Your task to perform on an android device: Open Chrome and go to the settings page Image 0: 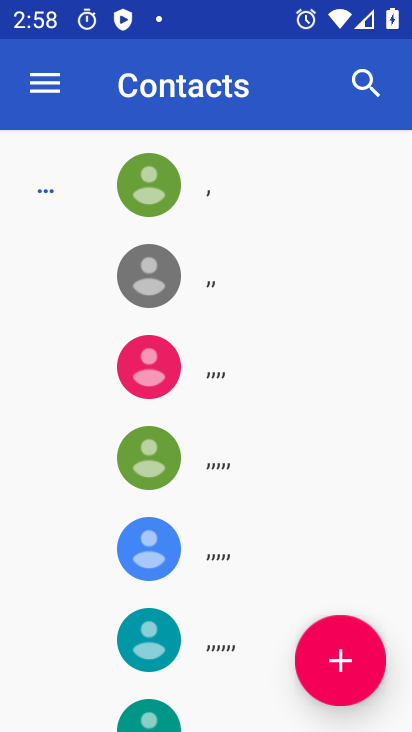
Step 0: press home button
Your task to perform on an android device: Open Chrome and go to the settings page Image 1: 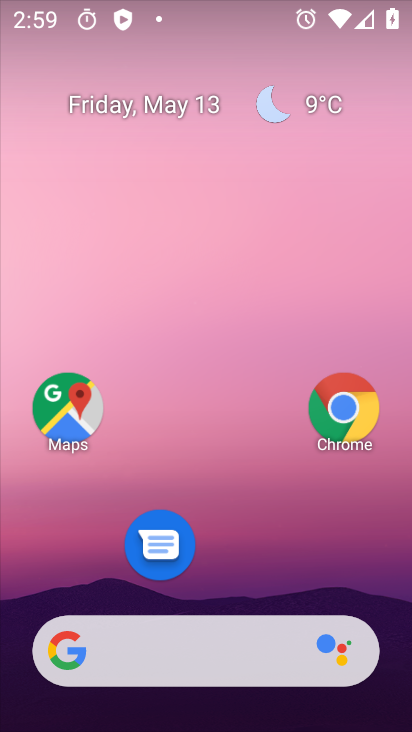
Step 1: click (343, 415)
Your task to perform on an android device: Open Chrome and go to the settings page Image 2: 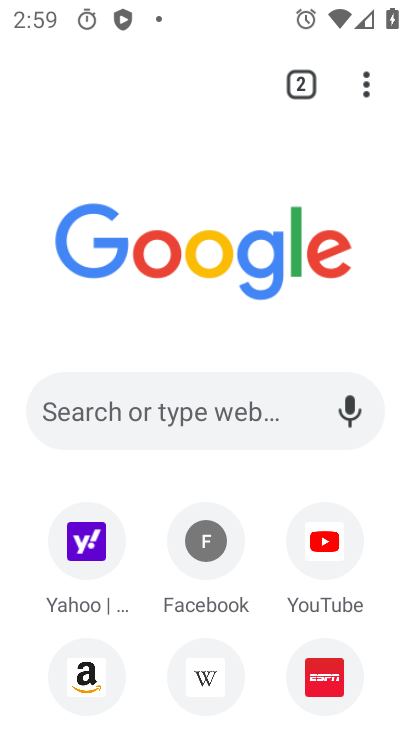
Step 2: task complete